Your task to perform on an android device: toggle javascript in the chrome app Image 0: 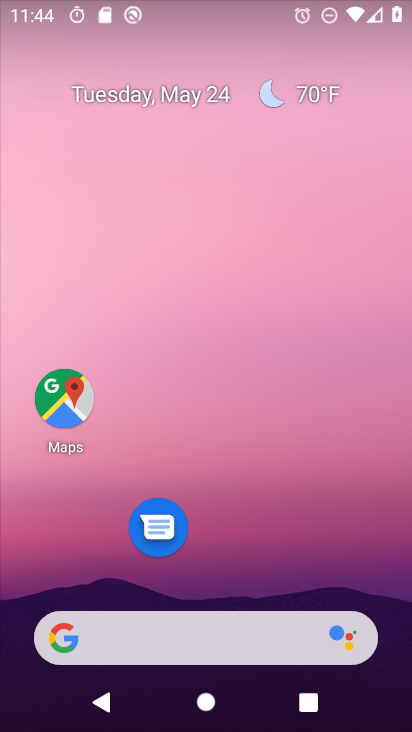
Step 0: drag from (251, 555) to (308, 87)
Your task to perform on an android device: toggle javascript in the chrome app Image 1: 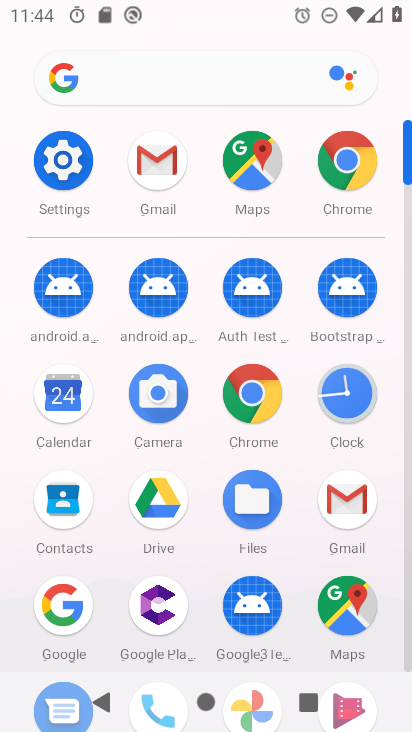
Step 1: click (244, 399)
Your task to perform on an android device: toggle javascript in the chrome app Image 2: 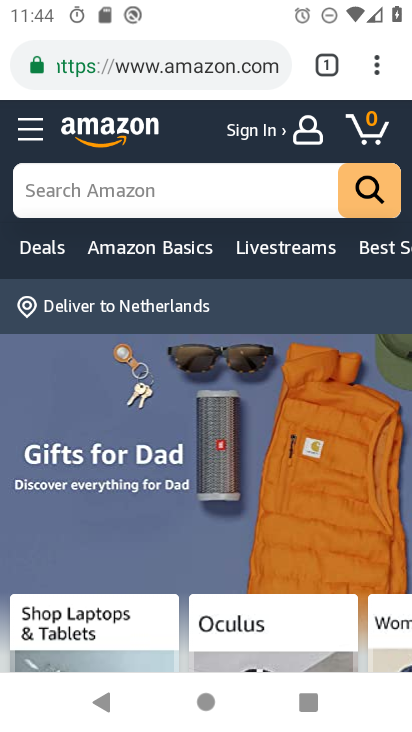
Step 2: click (370, 64)
Your task to perform on an android device: toggle javascript in the chrome app Image 3: 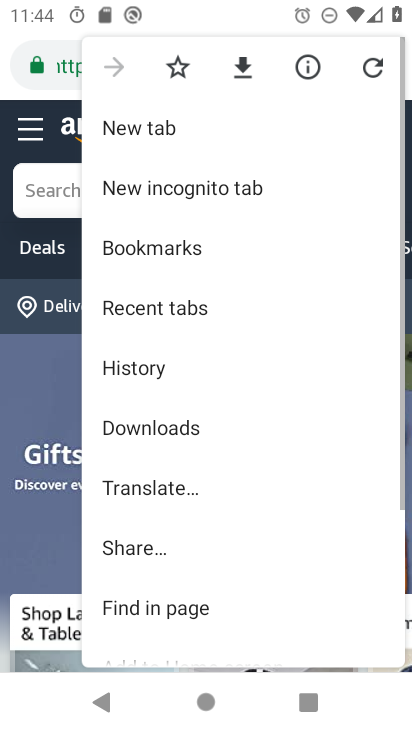
Step 3: drag from (219, 549) to (267, 174)
Your task to perform on an android device: toggle javascript in the chrome app Image 4: 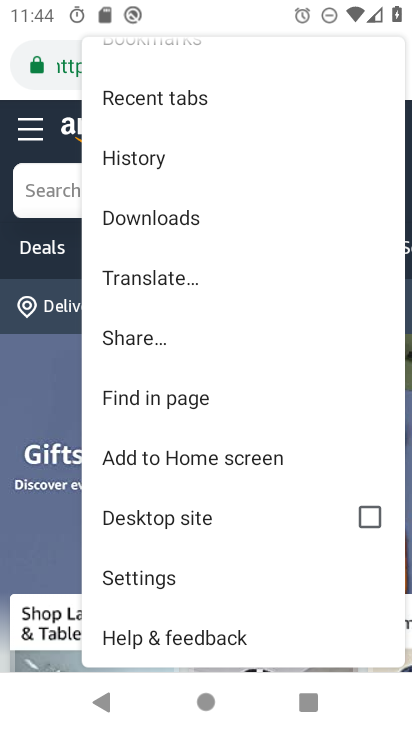
Step 4: click (169, 575)
Your task to perform on an android device: toggle javascript in the chrome app Image 5: 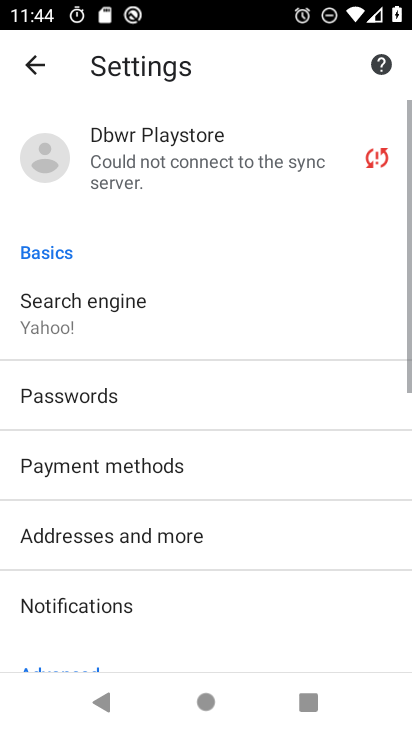
Step 5: drag from (217, 546) to (256, 12)
Your task to perform on an android device: toggle javascript in the chrome app Image 6: 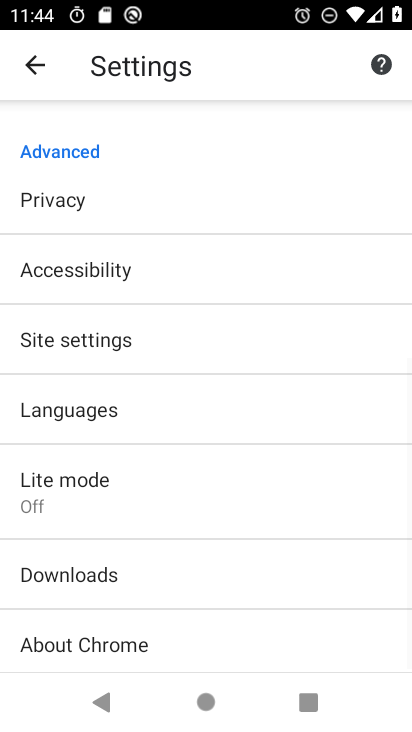
Step 6: click (129, 343)
Your task to perform on an android device: toggle javascript in the chrome app Image 7: 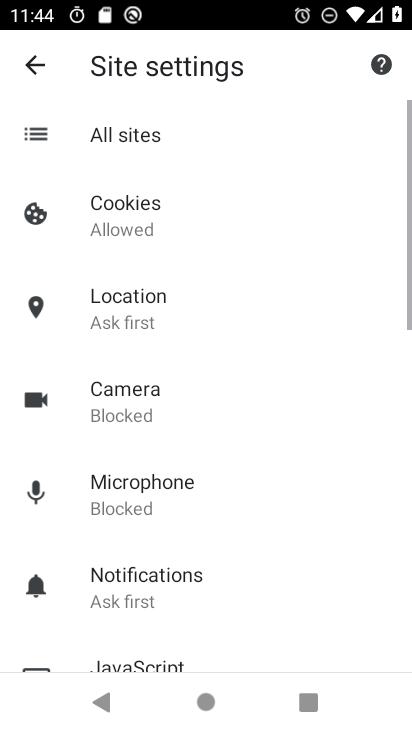
Step 7: drag from (217, 604) to (212, 419)
Your task to perform on an android device: toggle javascript in the chrome app Image 8: 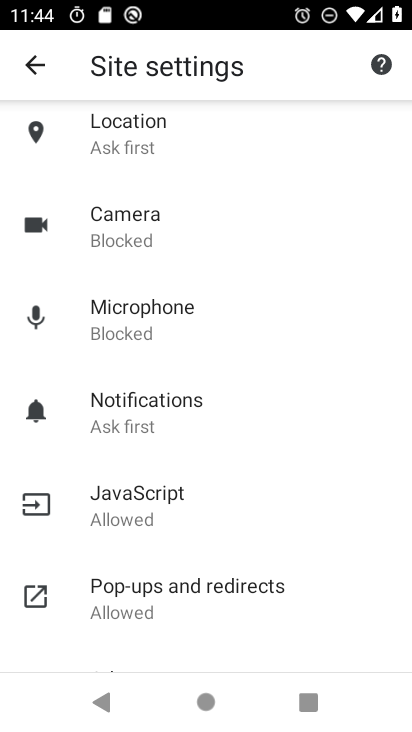
Step 8: click (175, 498)
Your task to perform on an android device: toggle javascript in the chrome app Image 9: 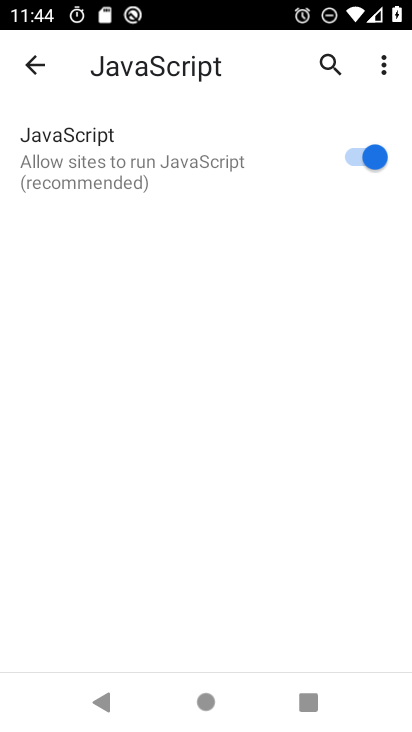
Step 9: click (375, 163)
Your task to perform on an android device: toggle javascript in the chrome app Image 10: 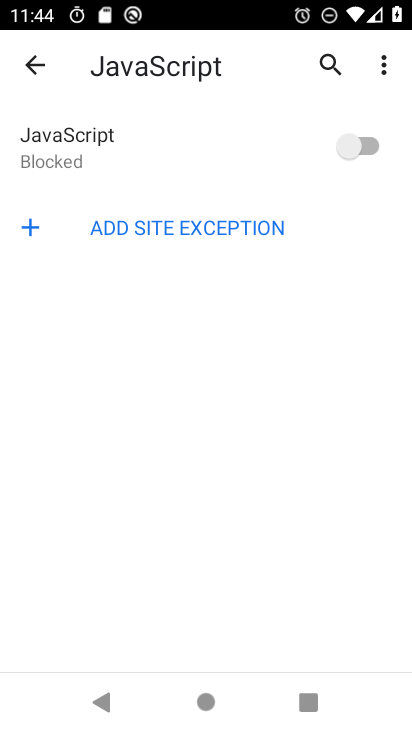
Step 10: task complete